Your task to perform on an android device: turn on notifications settings in the gmail app Image 0: 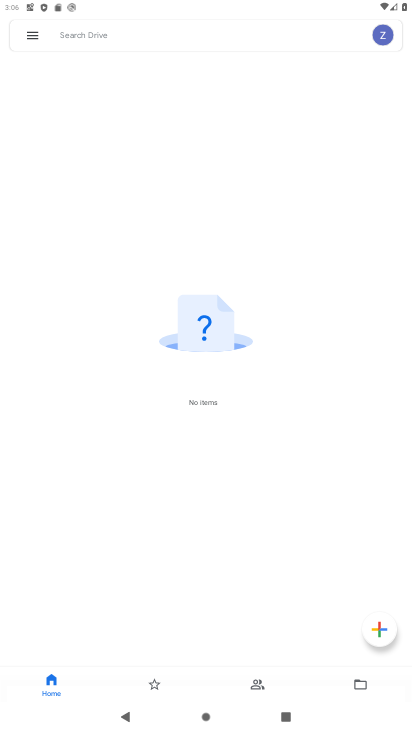
Step 0: press home button
Your task to perform on an android device: turn on notifications settings in the gmail app Image 1: 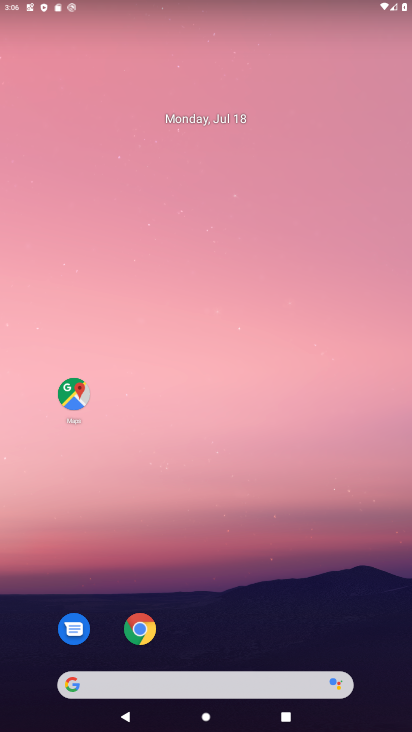
Step 1: drag from (202, 631) to (211, 96)
Your task to perform on an android device: turn on notifications settings in the gmail app Image 2: 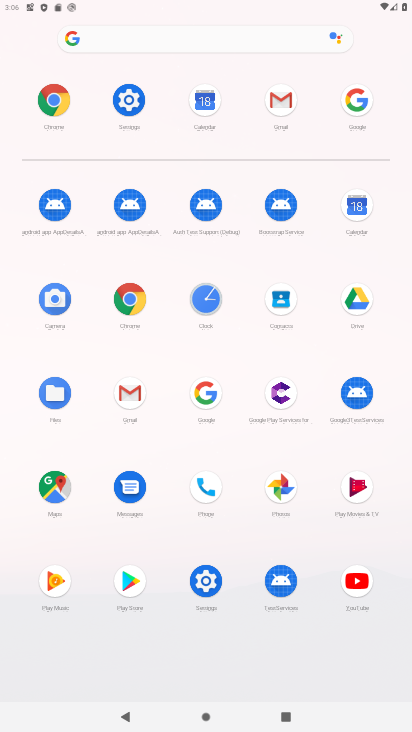
Step 2: click (277, 98)
Your task to perform on an android device: turn on notifications settings in the gmail app Image 3: 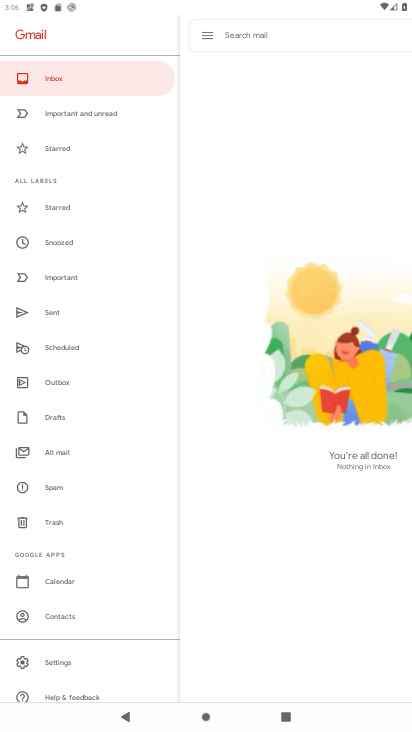
Step 3: click (68, 661)
Your task to perform on an android device: turn on notifications settings in the gmail app Image 4: 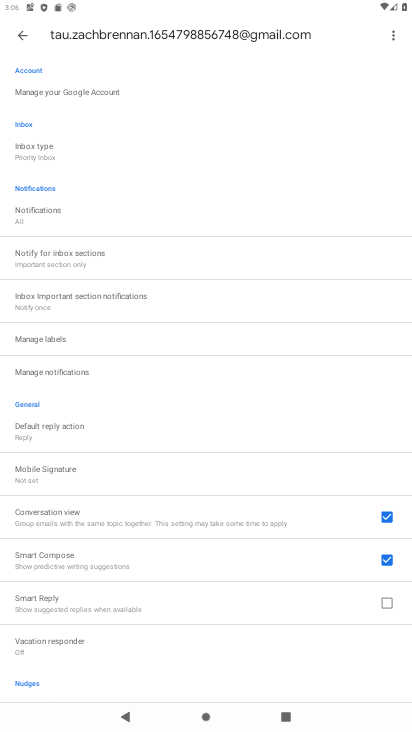
Step 4: click (131, 374)
Your task to perform on an android device: turn on notifications settings in the gmail app Image 5: 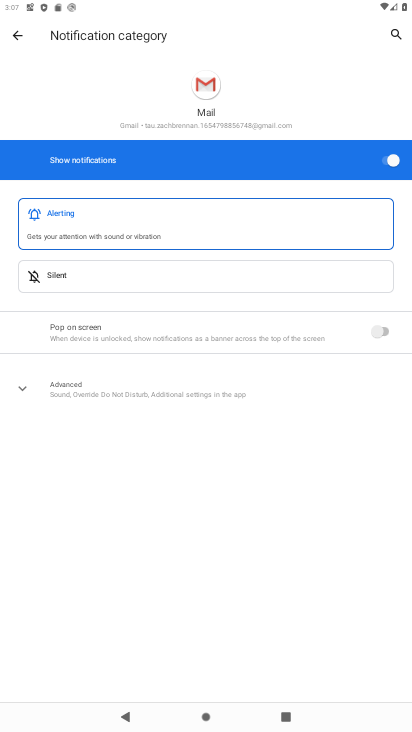
Step 5: task complete